Your task to perform on an android device: Go to privacy settings Image 0: 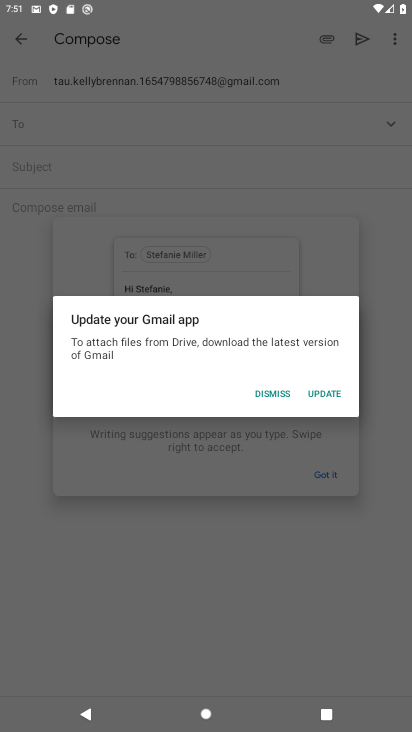
Step 0: press home button
Your task to perform on an android device: Go to privacy settings Image 1: 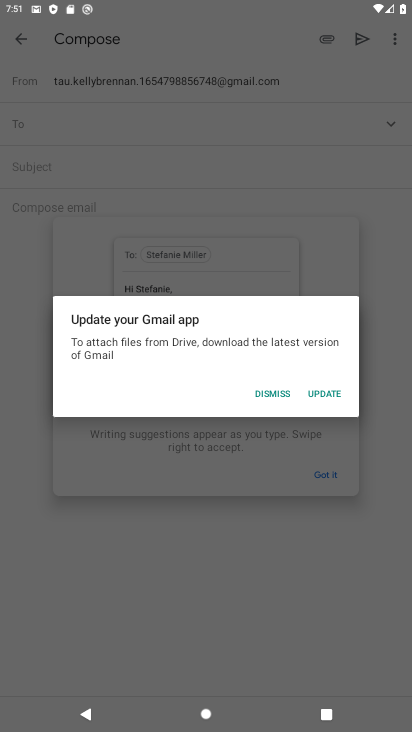
Step 1: click (394, 425)
Your task to perform on an android device: Go to privacy settings Image 2: 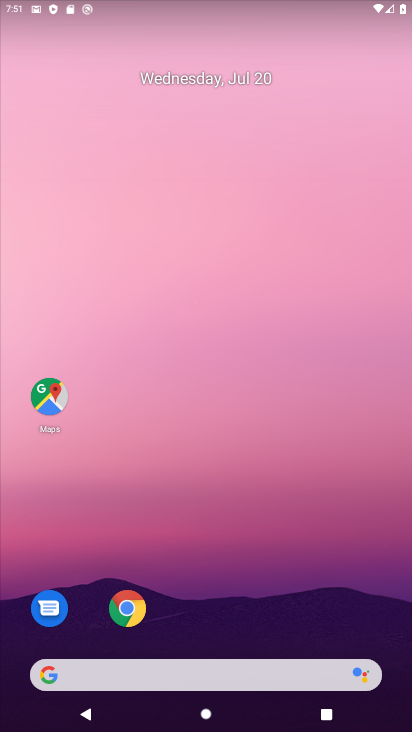
Step 2: drag from (31, 455) to (192, 132)
Your task to perform on an android device: Go to privacy settings Image 3: 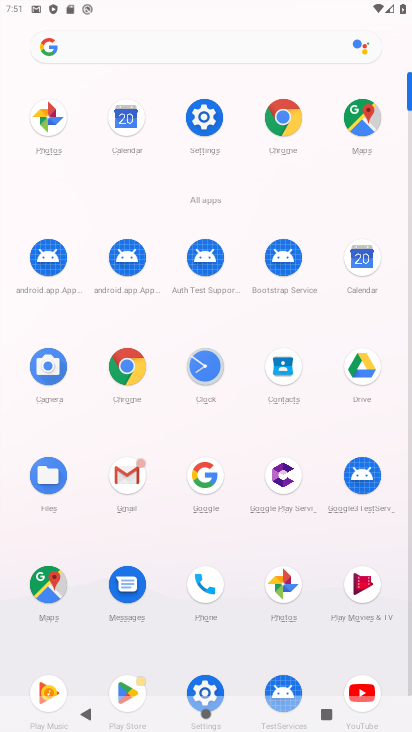
Step 3: click (201, 108)
Your task to perform on an android device: Go to privacy settings Image 4: 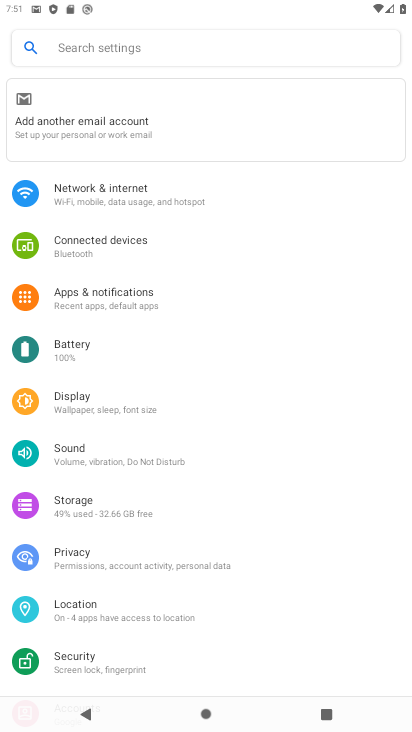
Step 4: click (82, 563)
Your task to perform on an android device: Go to privacy settings Image 5: 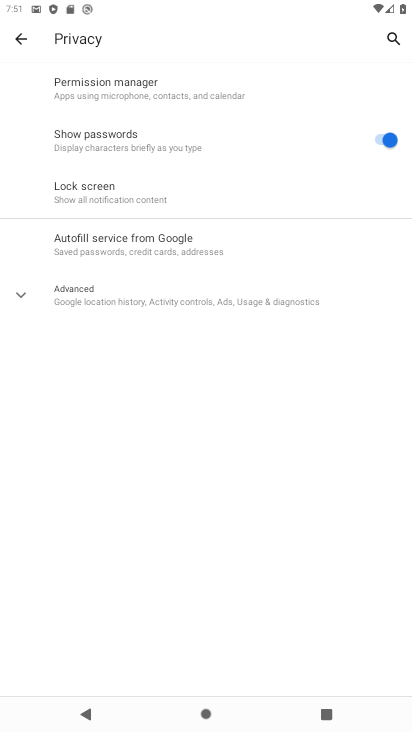
Step 5: task complete